Your task to perform on an android device: Search for Mexican restaurants on Maps Image 0: 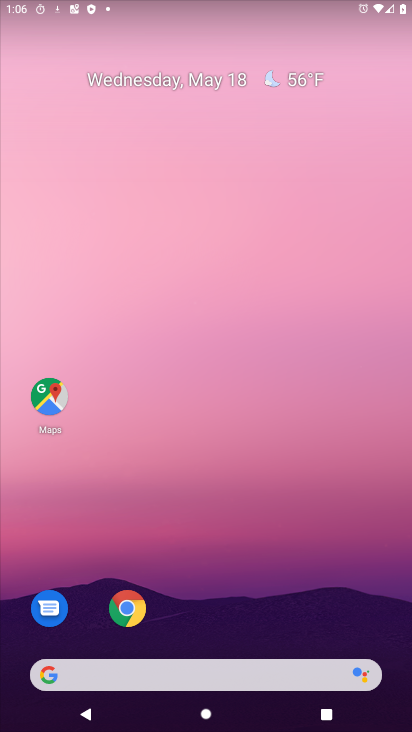
Step 0: drag from (257, 684) to (262, 216)
Your task to perform on an android device: Search for Mexican restaurants on Maps Image 1: 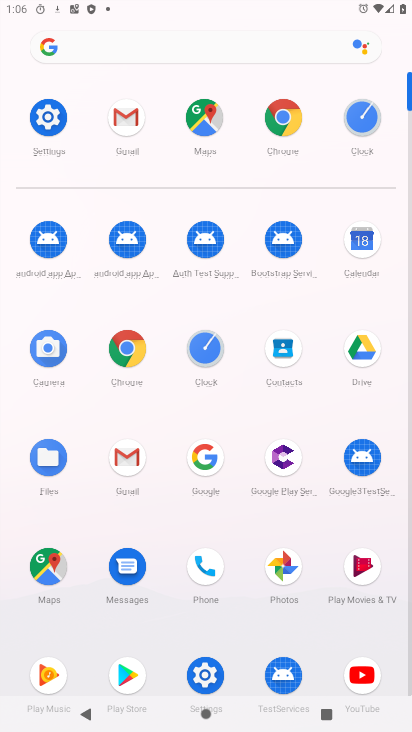
Step 1: click (191, 123)
Your task to perform on an android device: Search for Mexican restaurants on Maps Image 2: 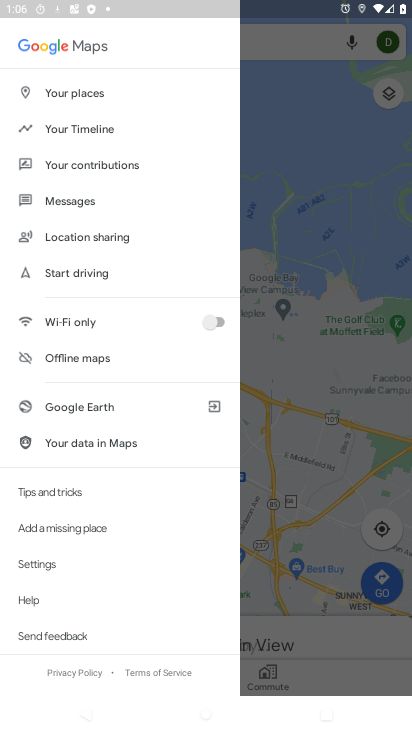
Step 2: click (323, 248)
Your task to perform on an android device: Search for Mexican restaurants on Maps Image 3: 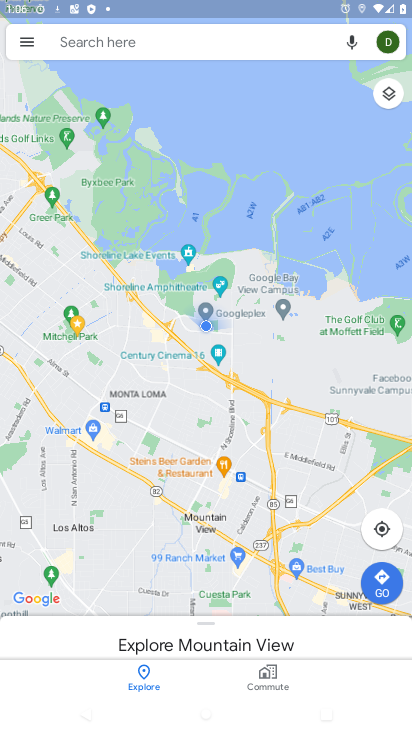
Step 3: click (148, 37)
Your task to perform on an android device: Search for Mexican restaurants on Maps Image 4: 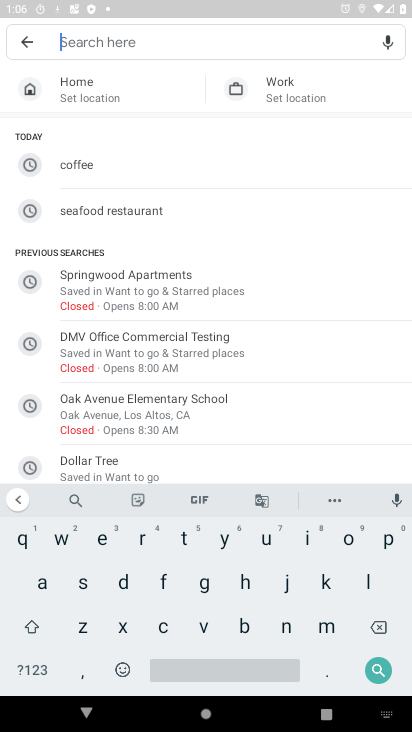
Step 4: click (320, 635)
Your task to perform on an android device: Search for Mexican restaurants on Maps Image 5: 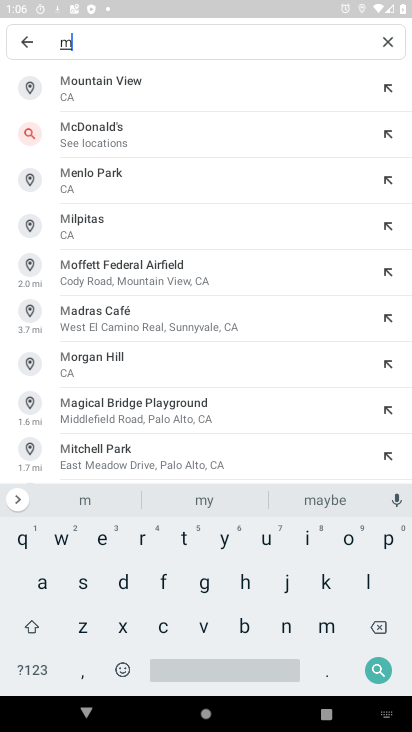
Step 5: click (98, 540)
Your task to perform on an android device: Search for Mexican restaurants on Maps Image 6: 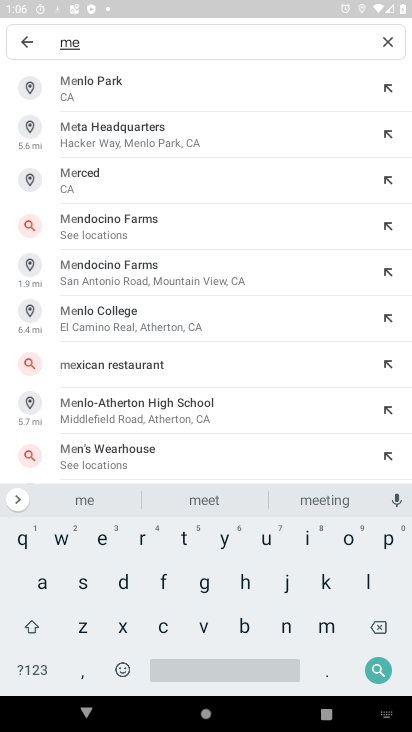
Step 6: click (122, 624)
Your task to perform on an android device: Search for Mexican restaurants on Maps Image 7: 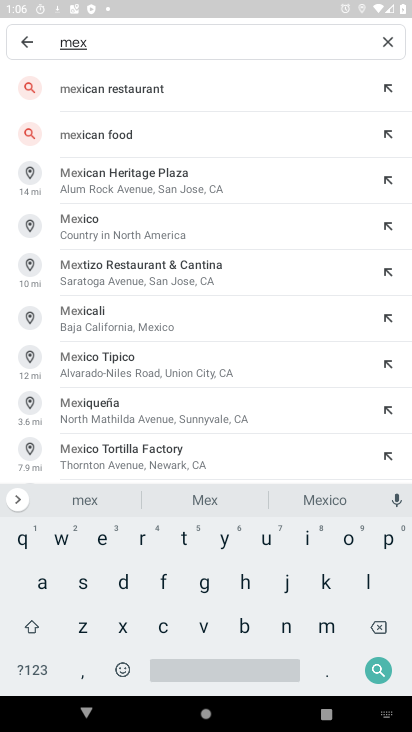
Step 7: click (199, 90)
Your task to perform on an android device: Search for Mexican restaurants on Maps Image 8: 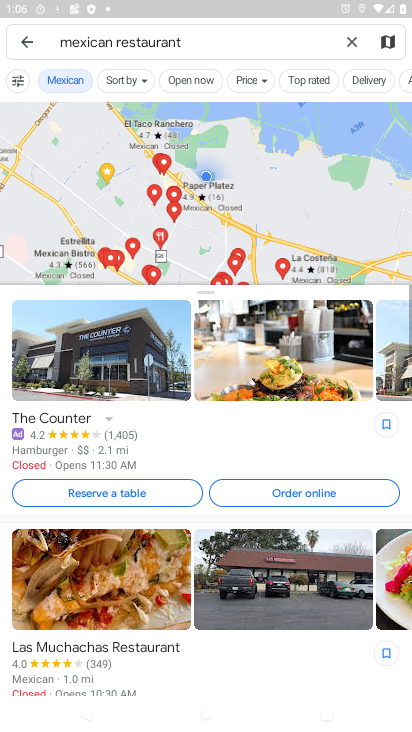
Step 8: click (142, 206)
Your task to perform on an android device: Search for Mexican restaurants on Maps Image 9: 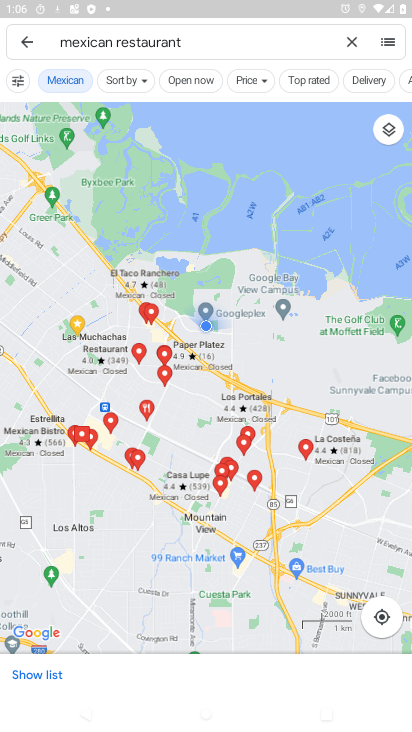
Step 9: task complete